Your task to perform on an android device: turn on sleep mode Image 0: 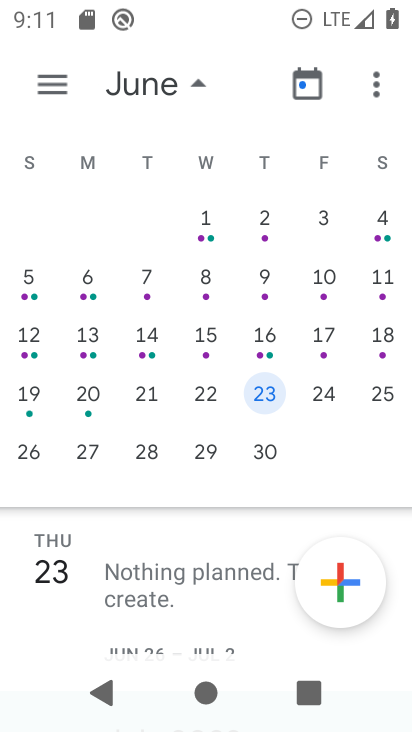
Step 0: press home button
Your task to perform on an android device: turn on sleep mode Image 1: 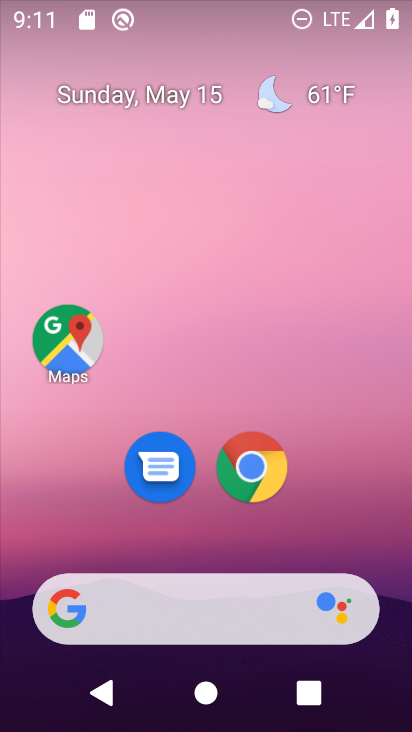
Step 1: drag from (200, 552) to (222, 171)
Your task to perform on an android device: turn on sleep mode Image 2: 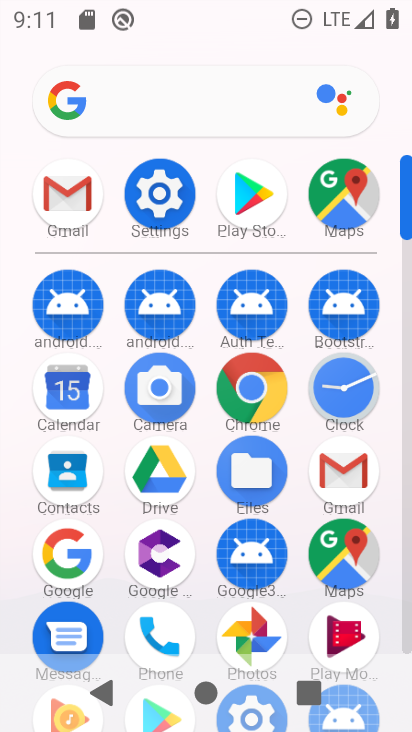
Step 2: click (136, 180)
Your task to perform on an android device: turn on sleep mode Image 3: 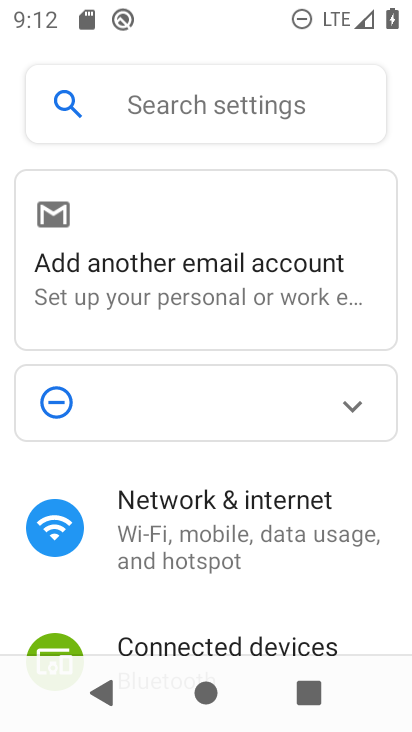
Step 3: task complete